Your task to perform on an android device: open app "Messenger Lite" (install if not already installed) Image 0: 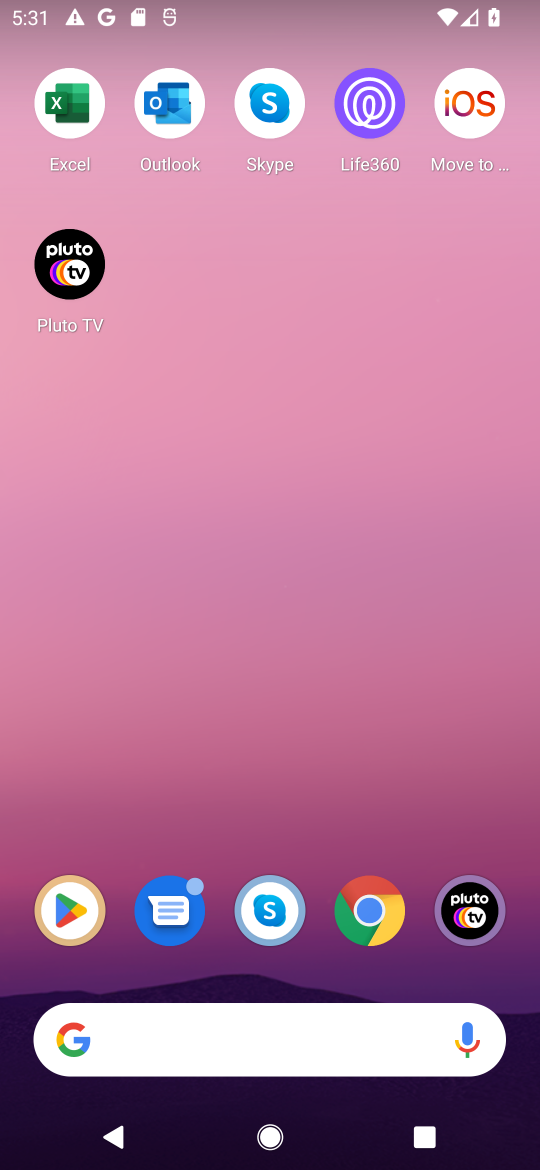
Step 0: drag from (280, 875) to (264, 179)
Your task to perform on an android device: open app "Messenger Lite" (install if not already installed) Image 1: 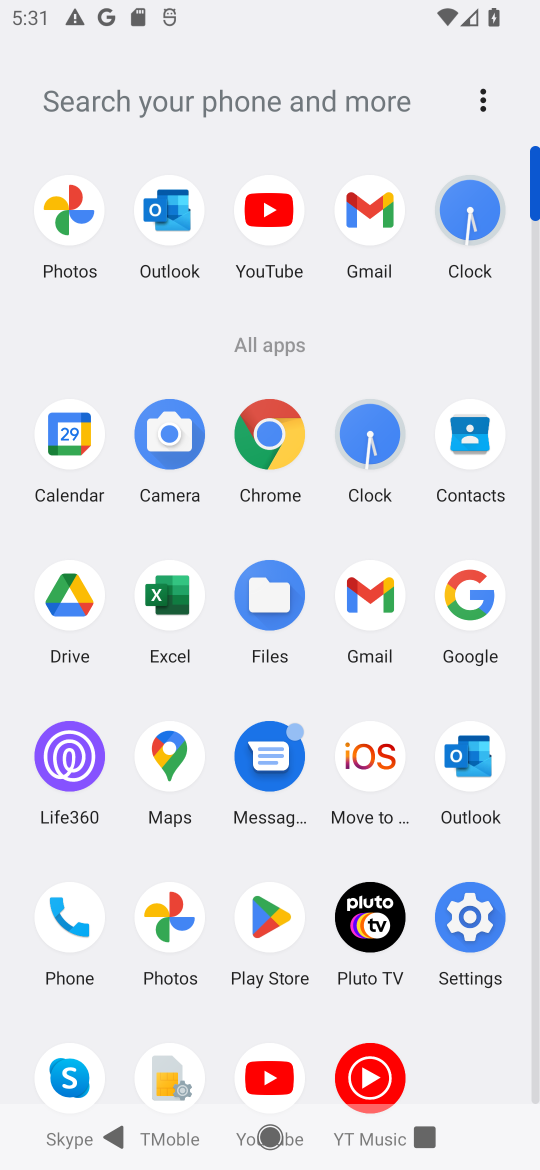
Step 1: click (271, 920)
Your task to perform on an android device: open app "Messenger Lite" (install if not already installed) Image 2: 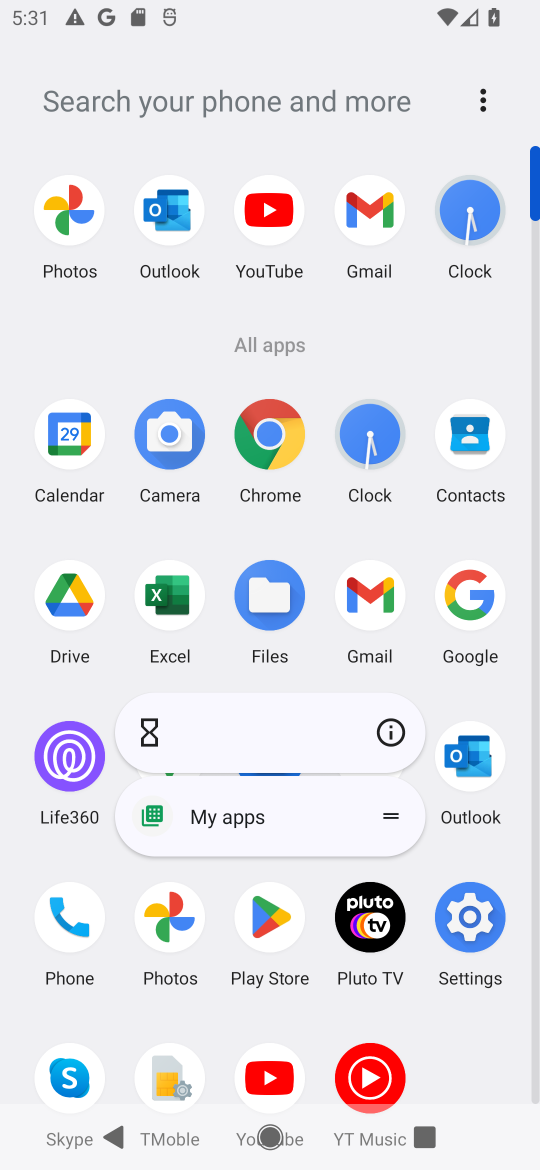
Step 2: click (272, 914)
Your task to perform on an android device: open app "Messenger Lite" (install if not already installed) Image 3: 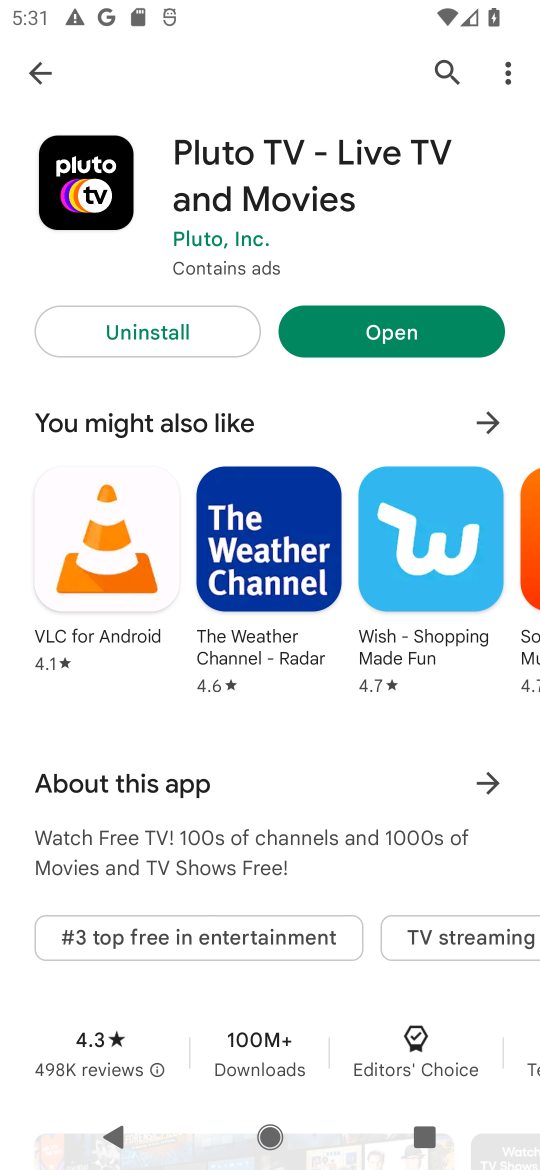
Step 3: click (45, 53)
Your task to perform on an android device: open app "Messenger Lite" (install if not already installed) Image 4: 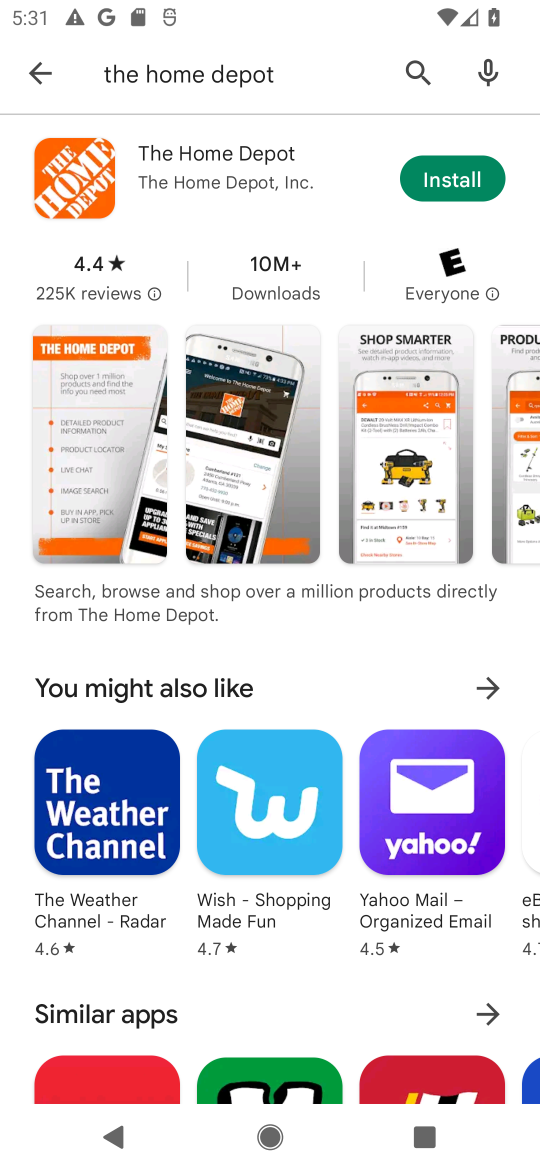
Step 4: click (148, 81)
Your task to perform on an android device: open app "Messenger Lite" (install if not already installed) Image 5: 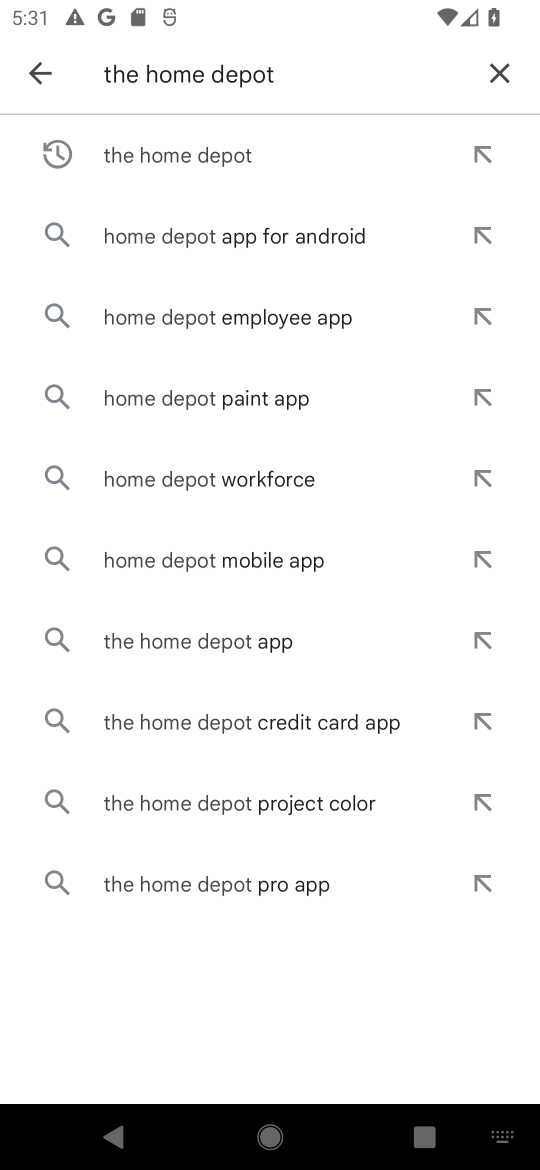
Step 5: click (498, 77)
Your task to perform on an android device: open app "Messenger Lite" (install if not already installed) Image 6: 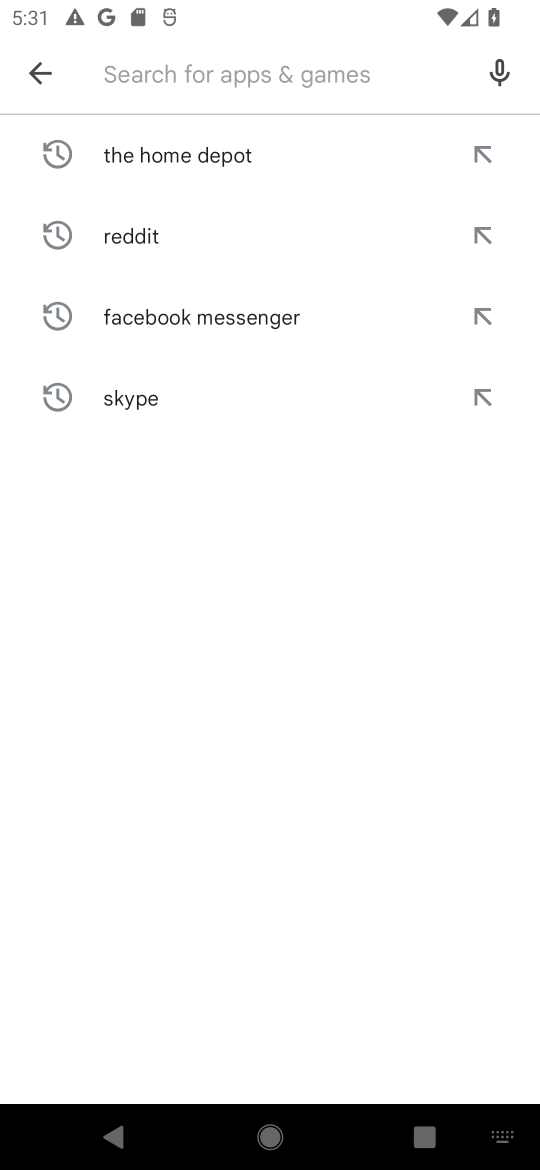
Step 6: type "Messenger Lite"
Your task to perform on an android device: open app "Messenger Lite" (install if not already installed) Image 7: 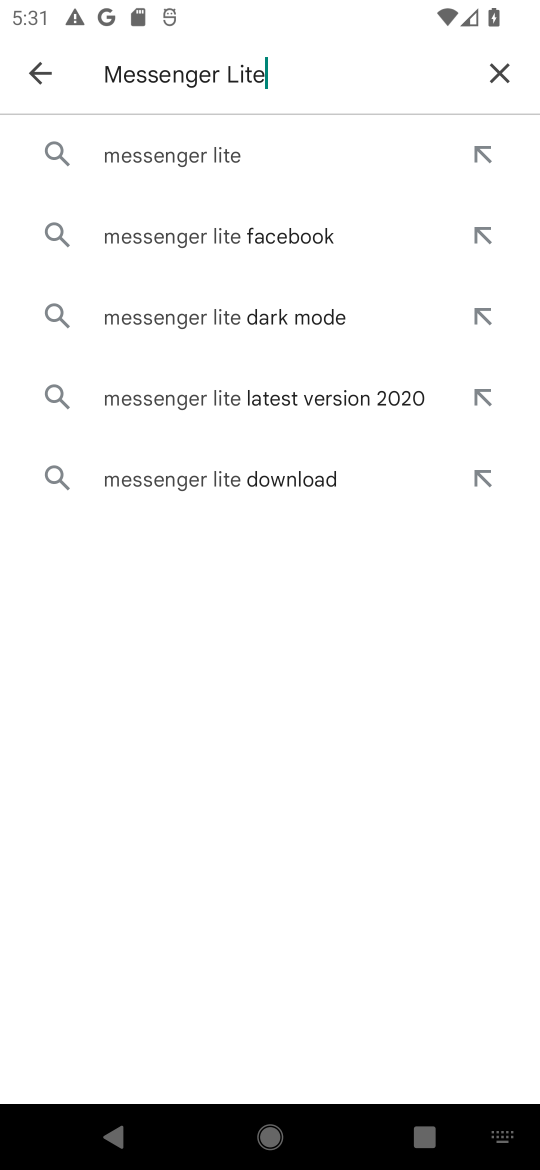
Step 7: click (164, 151)
Your task to perform on an android device: open app "Messenger Lite" (install if not already installed) Image 8: 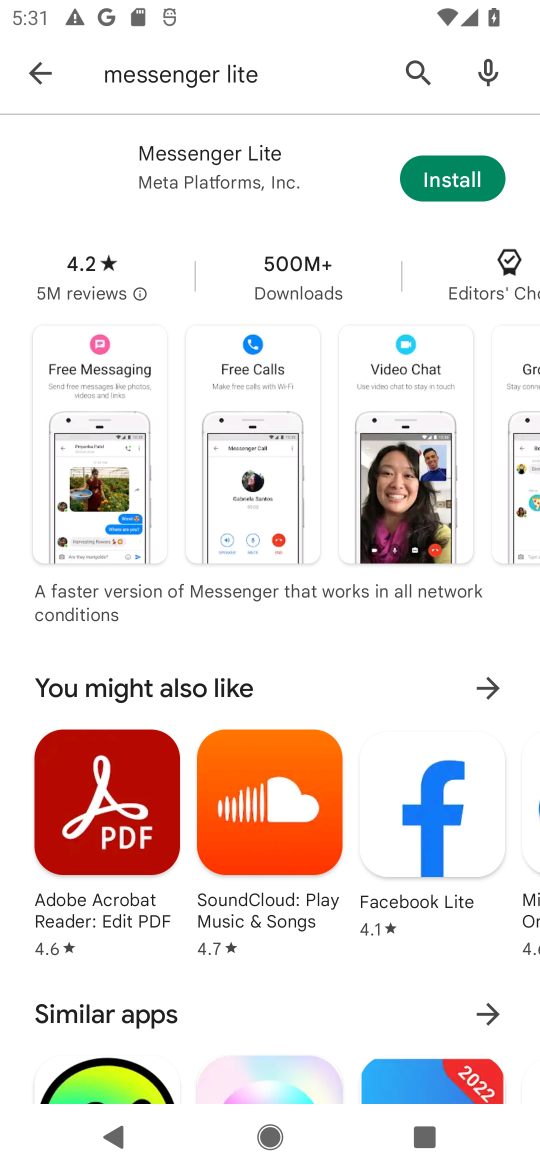
Step 8: click (442, 185)
Your task to perform on an android device: open app "Messenger Lite" (install if not already installed) Image 9: 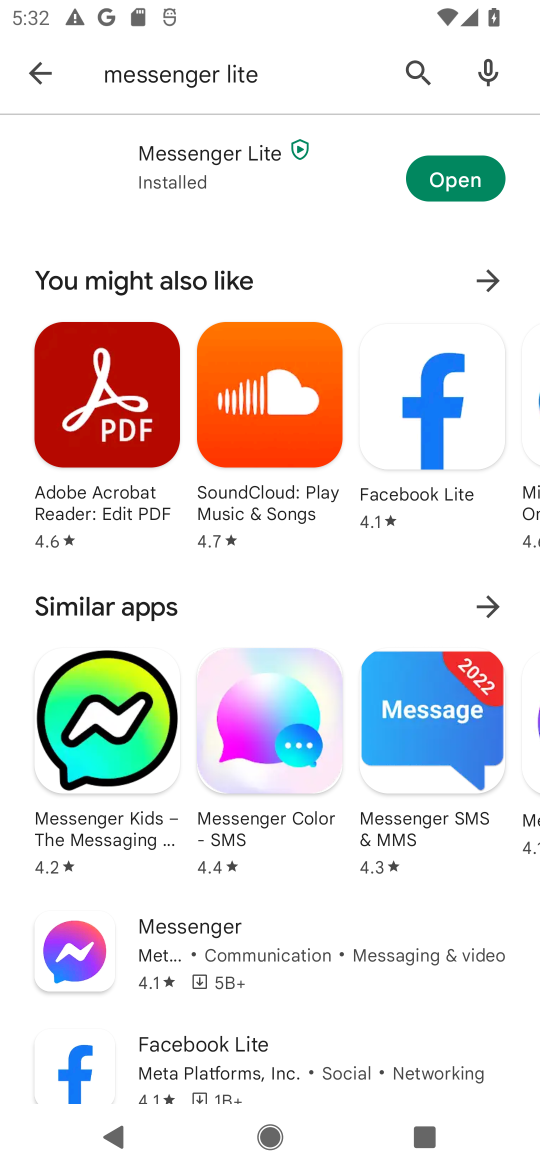
Step 9: click (470, 179)
Your task to perform on an android device: open app "Messenger Lite" (install if not already installed) Image 10: 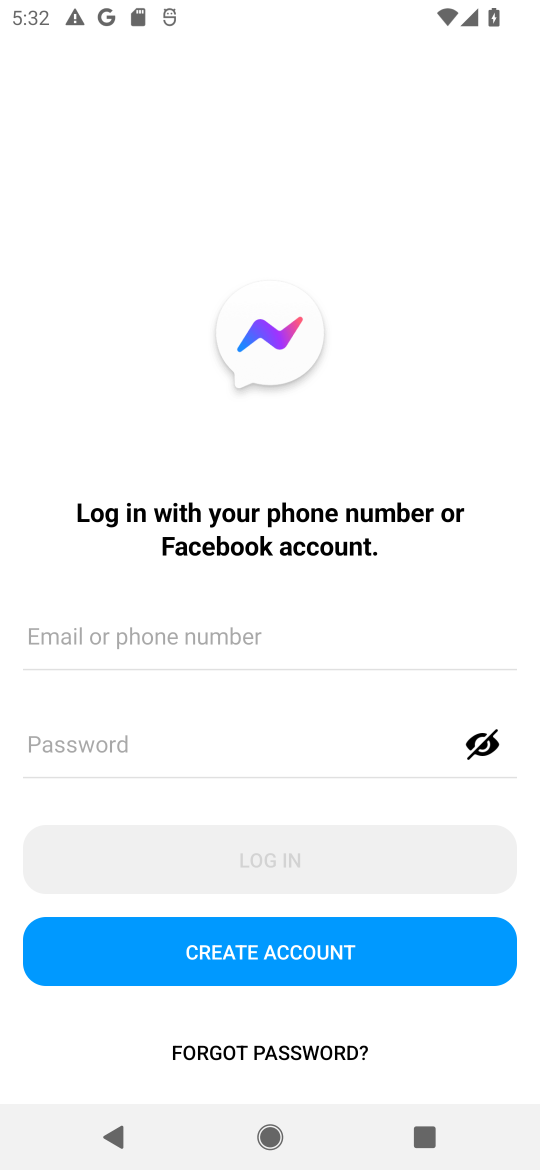
Step 10: task complete